Your task to perform on an android device: Open Amazon Image 0: 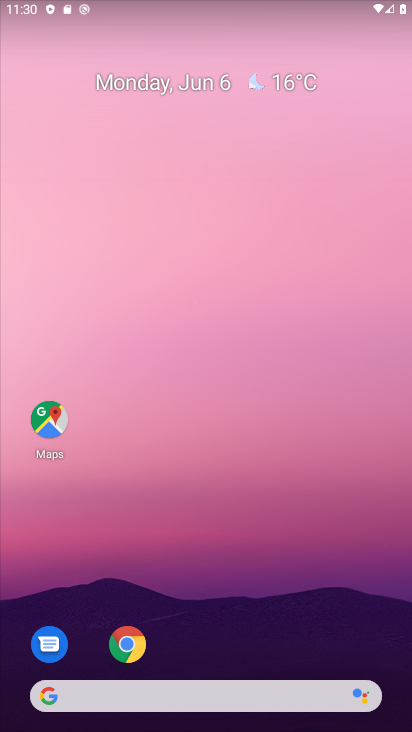
Step 0: click (139, 646)
Your task to perform on an android device: Open Amazon Image 1: 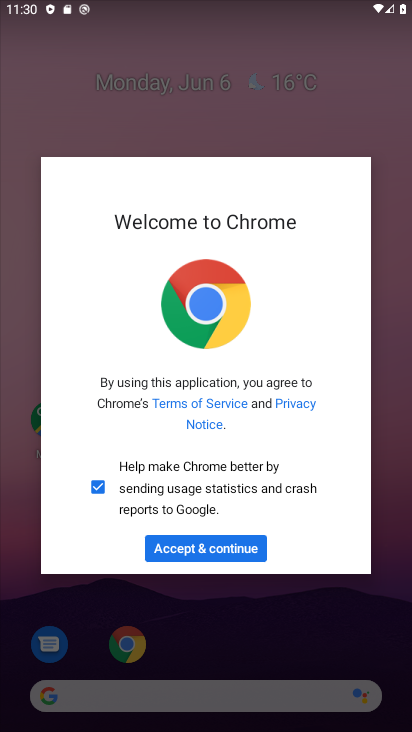
Step 1: click (244, 549)
Your task to perform on an android device: Open Amazon Image 2: 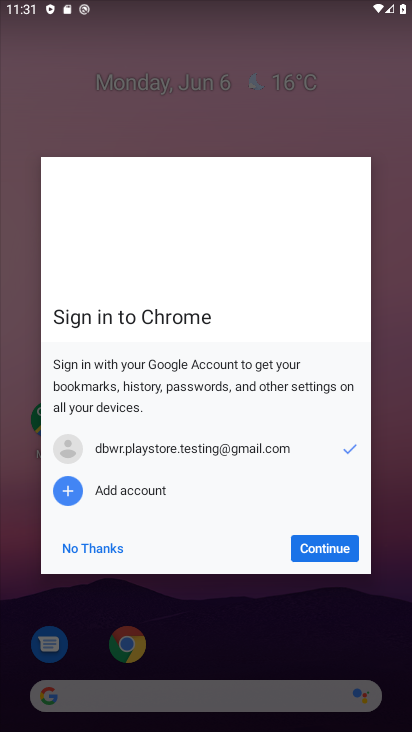
Step 2: click (312, 550)
Your task to perform on an android device: Open Amazon Image 3: 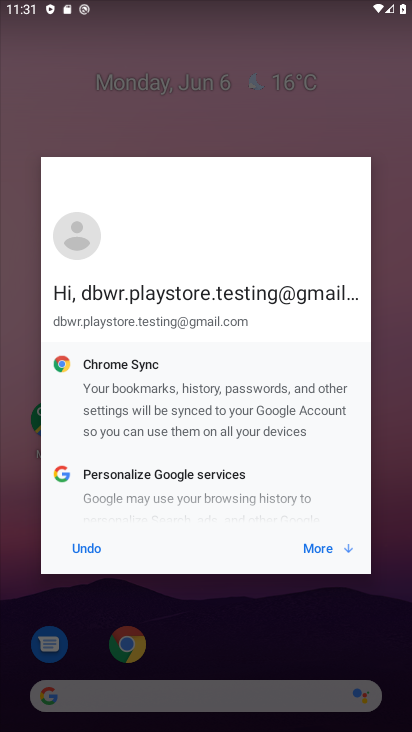
Step 3: click (311, 544)
Your task to perform on an android device: Open Amazon Image 4: 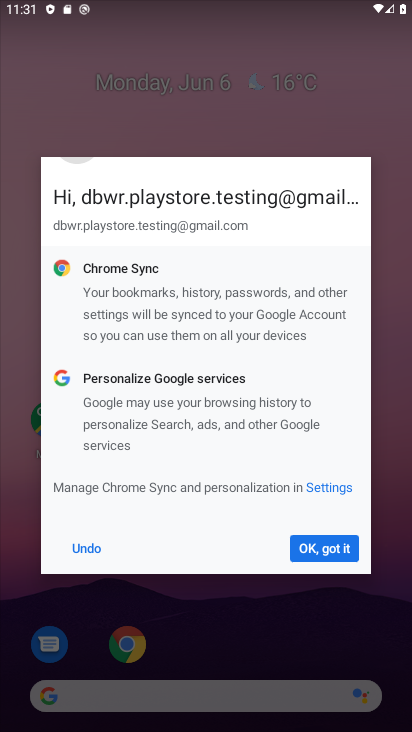
Step 4: click (311, 544)
Your task to perform on an android device: Open Amazon Image 5: 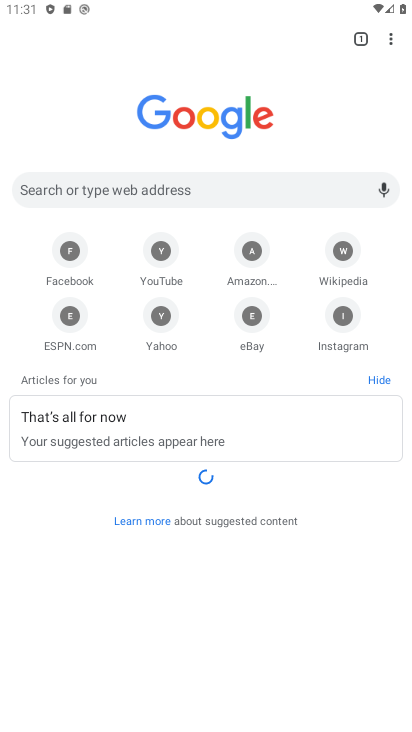
Step 5: click (247, 261)
Your task to perform on an android device: Open Amazon Image 6: 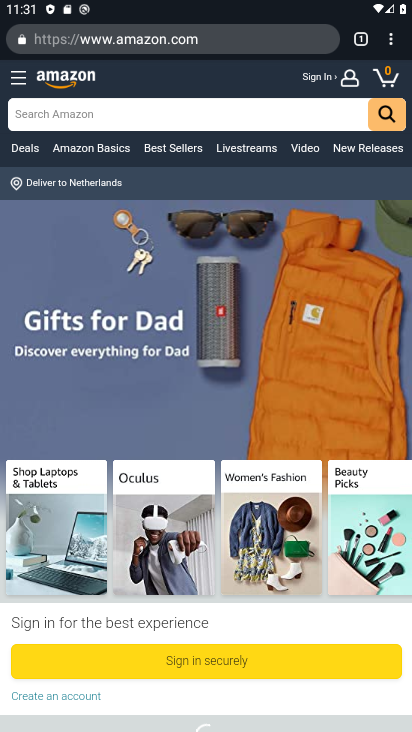
Step 6: task complete